Your task to perform on an android device: Search for Italian restaurants on Maps Image 0: 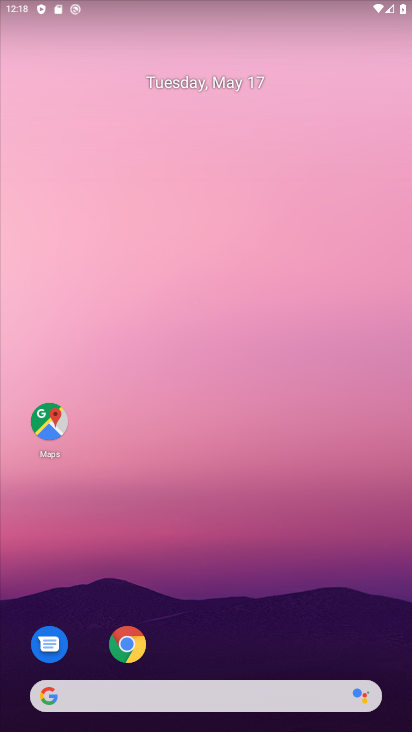
Step 0: click (32, 424)
Your task to perform on an android device: Search for Italian restaurants on Maps Image 1: 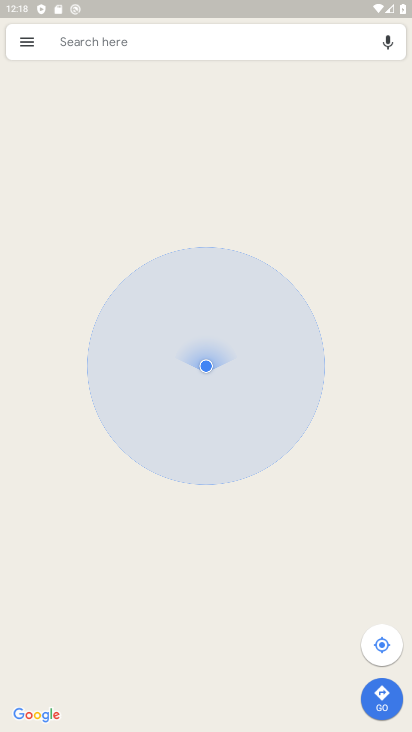
Step 1: click (164, 40)
Your task to perform on an android device: Search for Italian restaurants on Maps Image 2: 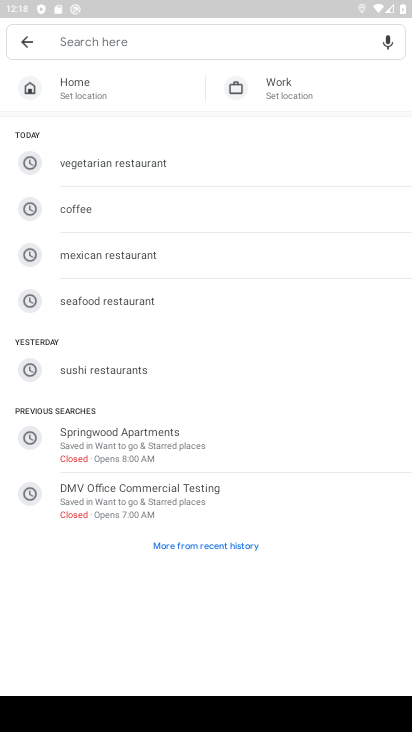
Step 2: type "Italian restaurants"
Your task to perform on an android device: Search for Italian restaurants on Maps Image 3: 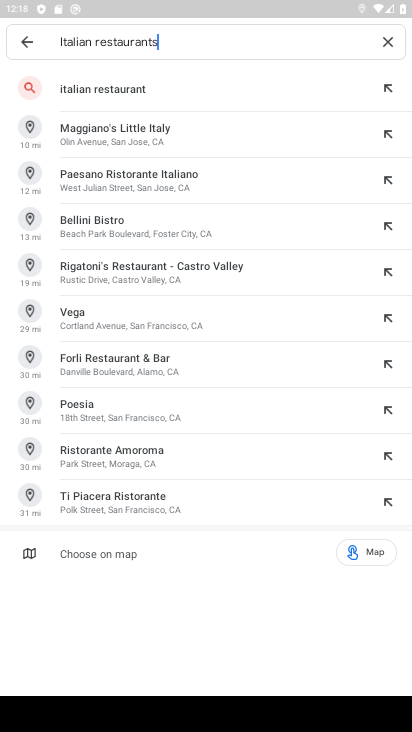
Step 3: click (183, 88)
Your task to perform on an android device: Search for Italian restaurants on Maps Image 4: 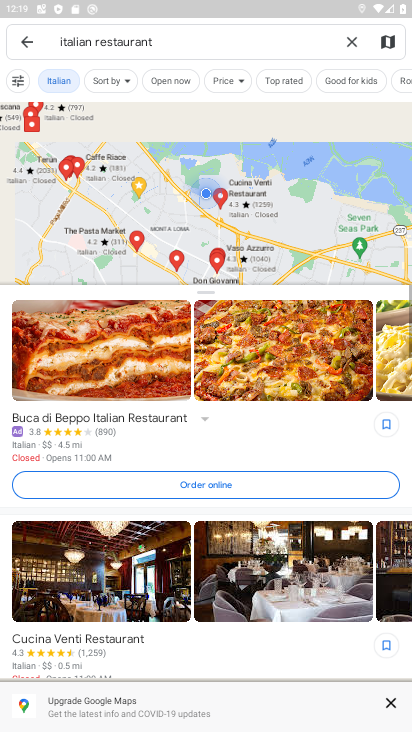
Step 4: click (390, 705)
Your task to perform on an android device: Search for Italian restaurants on Maps Image 5: 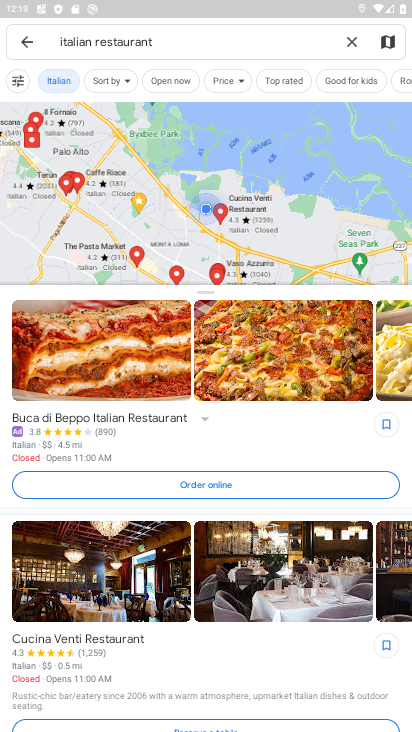
Step 5: task complete